Your task to perform on an android device: open wifi settings Image 0: 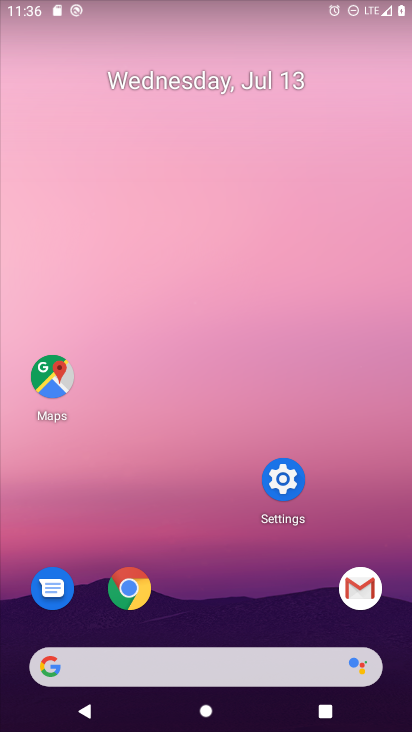
Step 0: press home button
Your task to perform on an android device: open wifi settings Image 1: 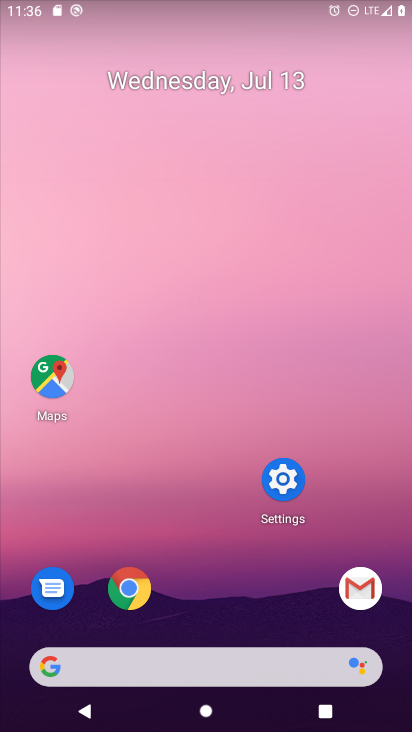
Step 1: click (283, 491)
Your task to perform on an android device: open wifi settings Image 2: 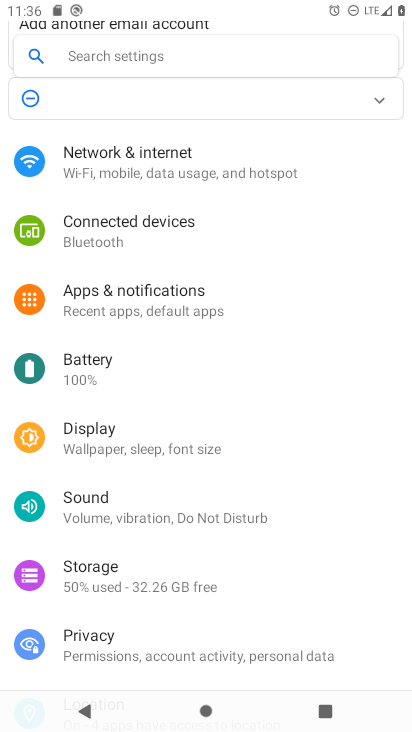
Step 2: click (140, 157)
Your task to perform on an android device: open wifi settings Image 3: 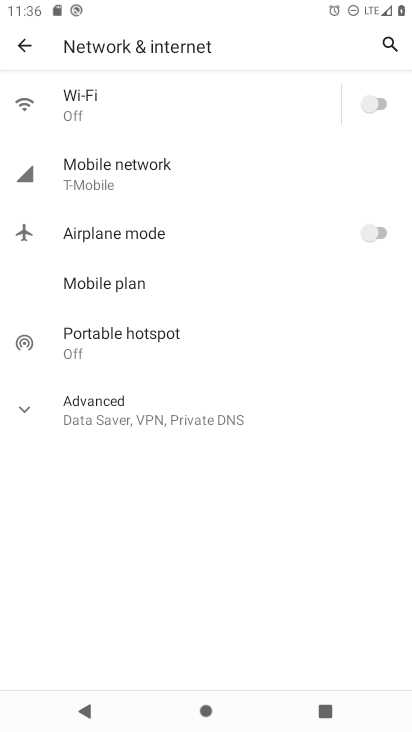
Step 3: click (130, 97)
Your task to perform on an android device: open wifi settings Image 4: 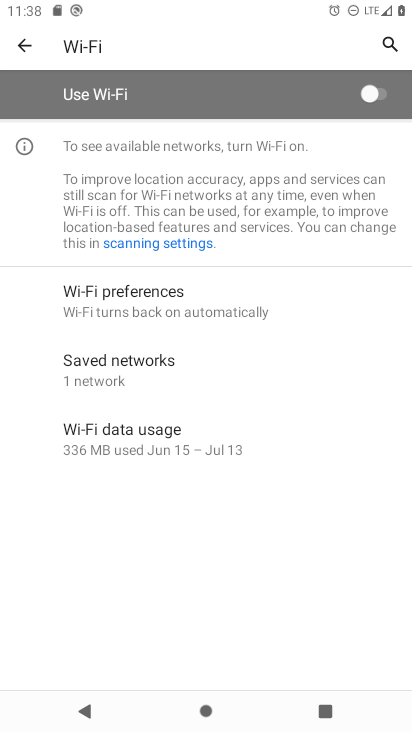
Step 4: task complete